Your task to perform on an android device: Search for macbook air on amazon, select the first entry, add it to the cart, then select checkout. Image 0: 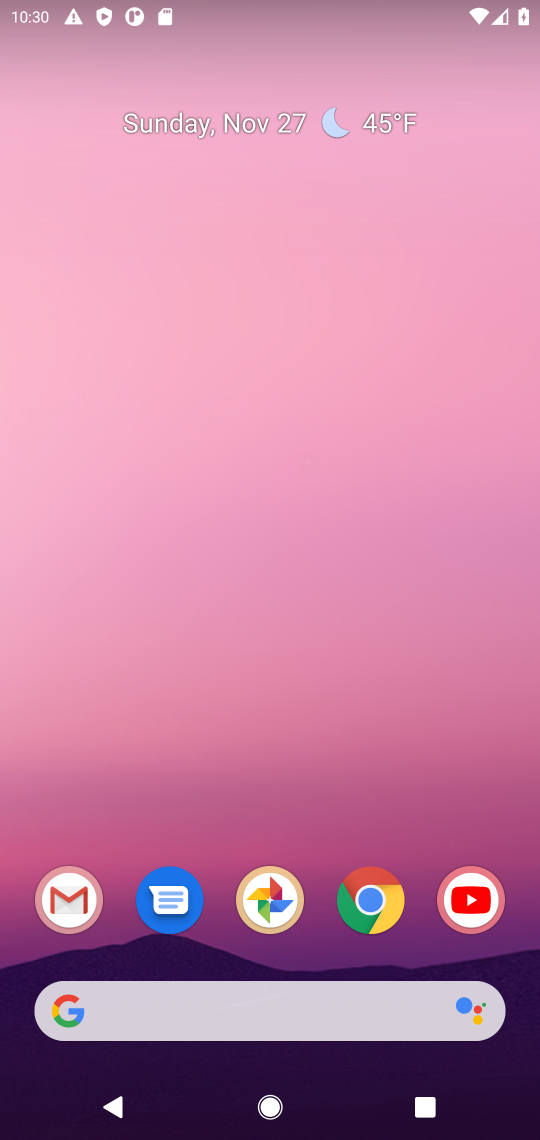
Step 0: click (369, 901)
Your task to perform on an android device: Search for macbook air on amazon, select the first entry, add it to the cart, then select checkout. Image 1: 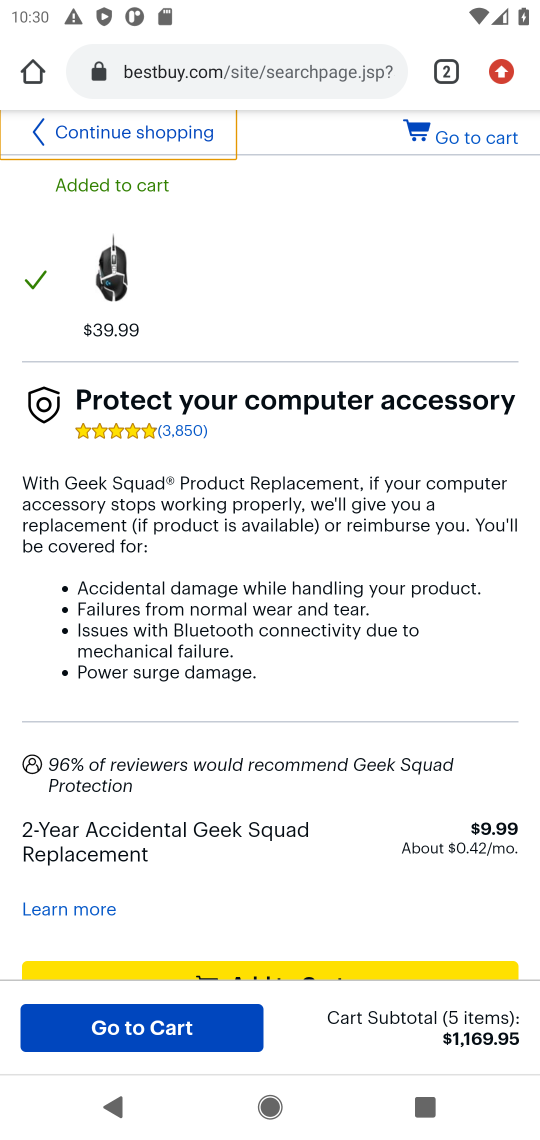
Step 1: click (211, 72)
Your task to perform on an android device: Search for macbook air on amazon, select the first entry, add it to the cart, then select checkout. Image 2: 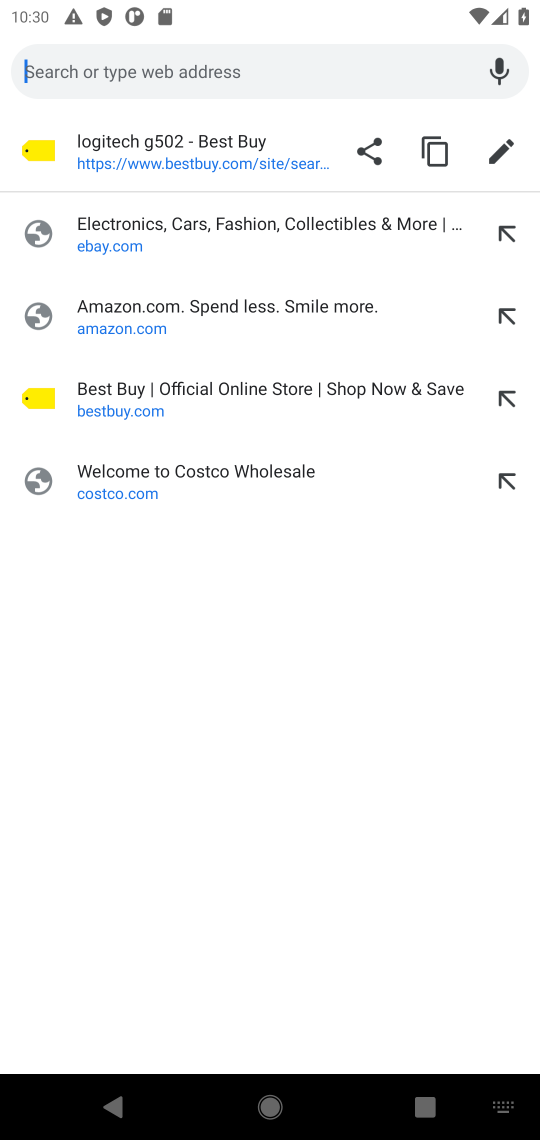
Step 2: click (107, 319)
Your task to perform on an android device: Search for macbook air on amazon, select the first entry, add it to the cart, then select checkout. Image 3: 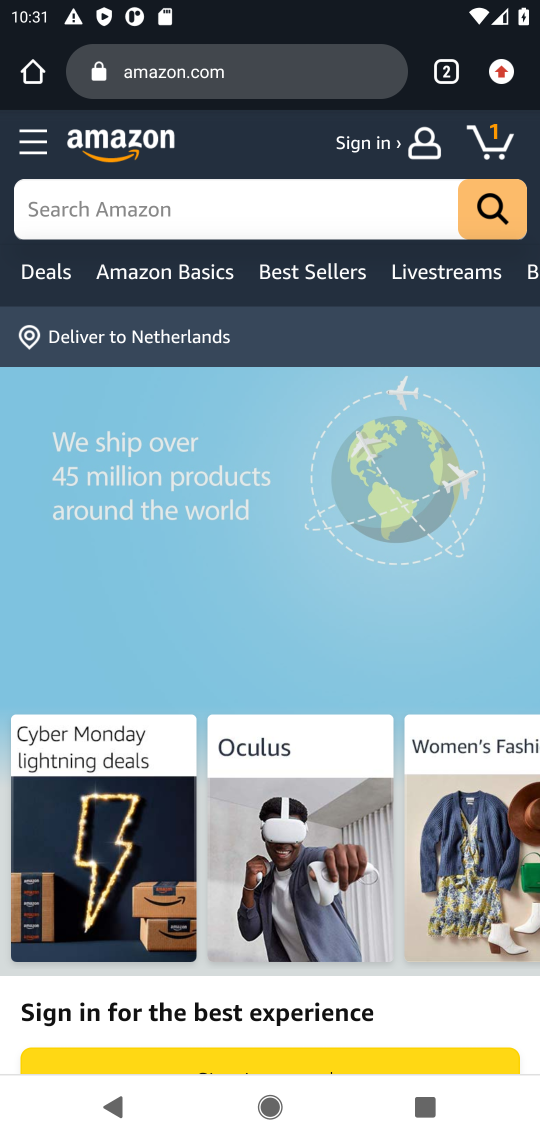
Step 3: click (126, 213)
Your task to perform on an android device: Search for macbook air on amazon, select the first entry, add it to the cart, then select checkout. Image 4: 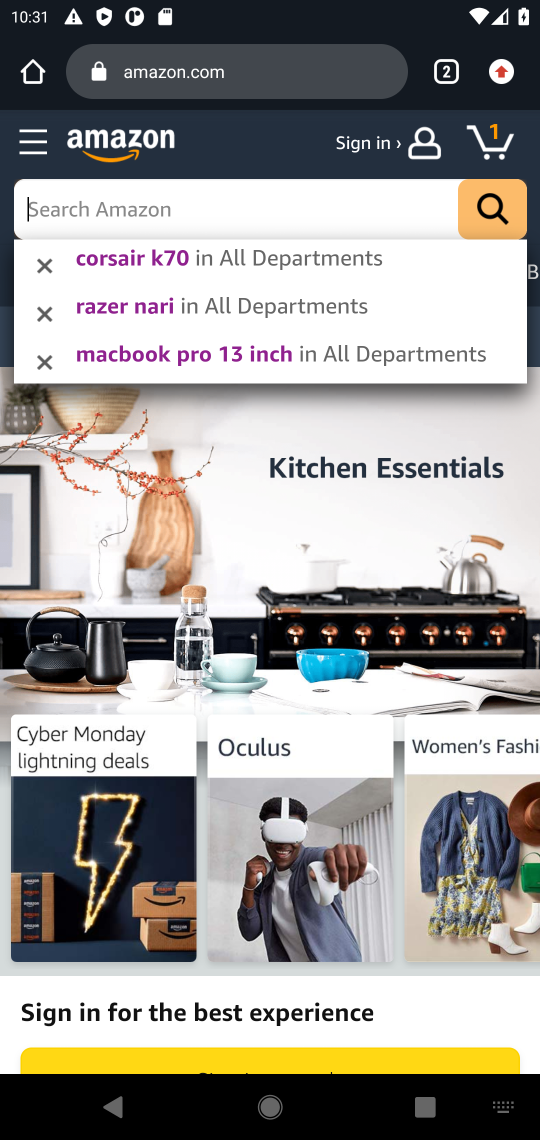
Step 4: type "macbook air"
Your task to perform on an android device: Search for macbook air on amazon, select the first entry, add it to the cart, then select checkout. Image 5: 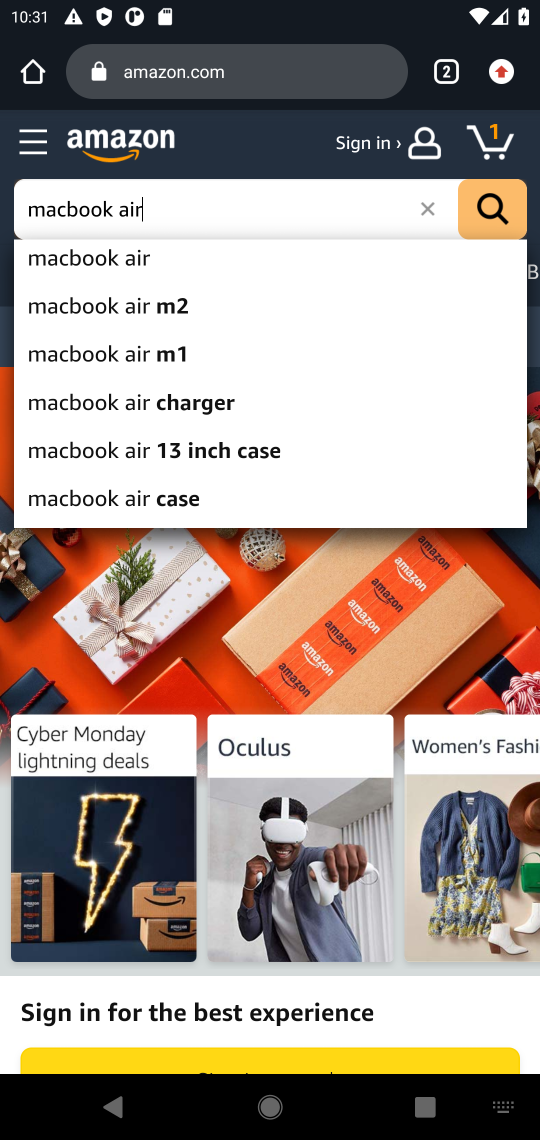
Step 5: click (82, 260)
Your task to perform on an android device: Search for macbook air on amazon, select the first entry, add it to the cart, then select checkout. Image 6: 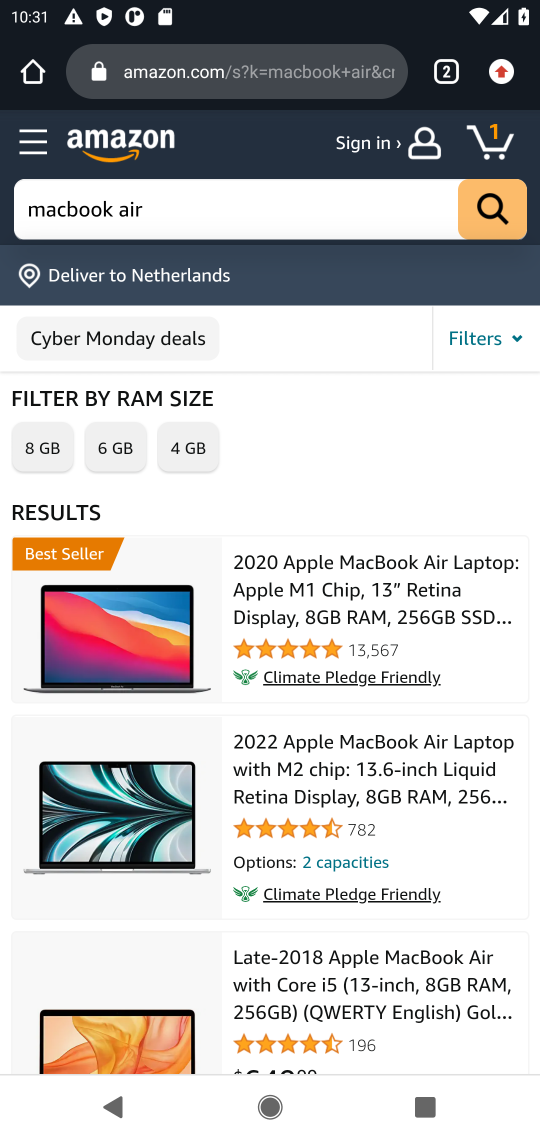
Step 6: click (283, 611)
Your task to perform on an android device: Search for macbook air on amazon, select the first entry, add it to the cart, then select checkout. Image 7: 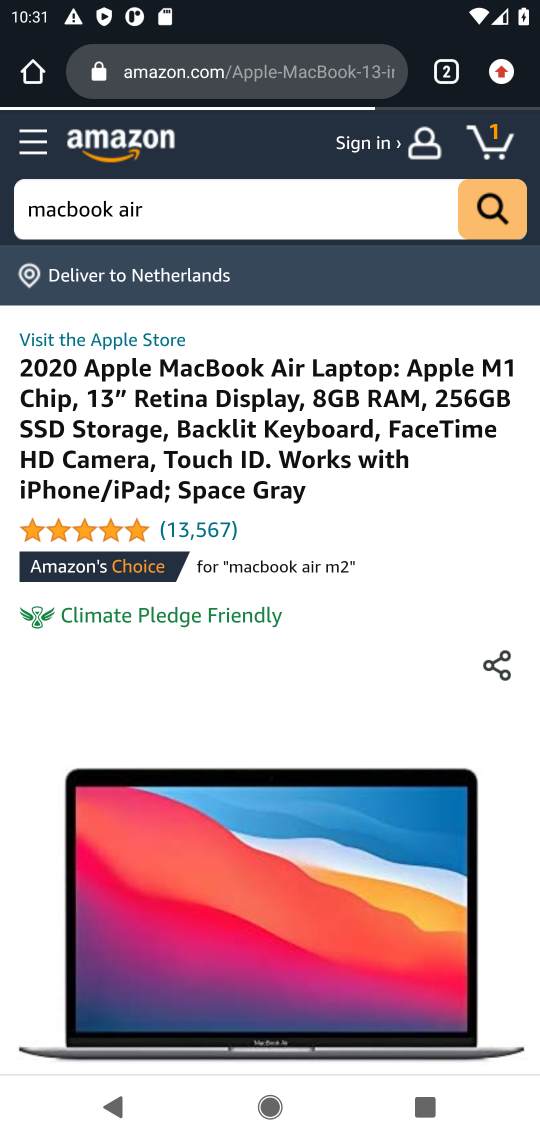
Step 7: task complete